Your task to perform on an android device: uninstall "Indeed Job Search" Image 0: 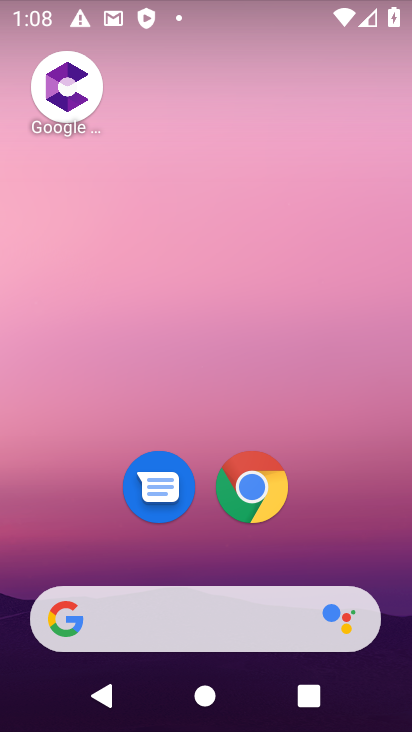
Step 0: drag from (186, 555) to (246, 288)
Your task to perform on an android device: uninstall "Indeed Job Search" Image 1: 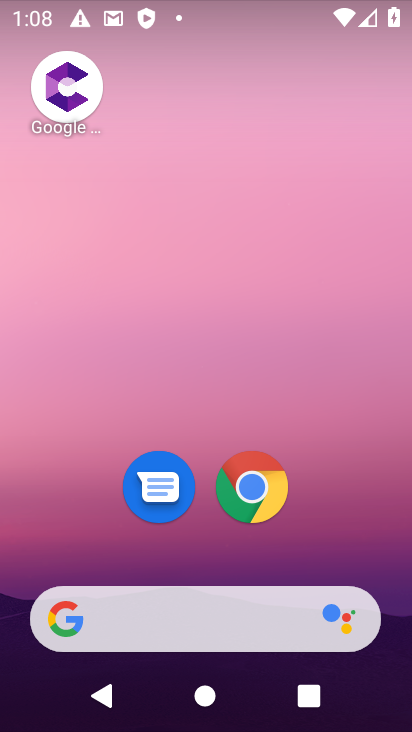
Step 1: drag from (188, 546) to (199, 86)
Your task to perform on an android device: uninstall "Indeed Job Search" Image 2: 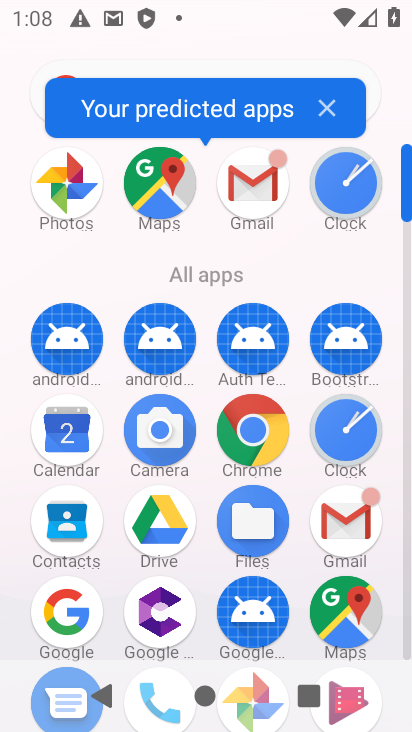
Step 2: drag from (105, 466) to (123, 178)
Your task to perform on an android device: uninstall "Indeed Job Search" Image 3: 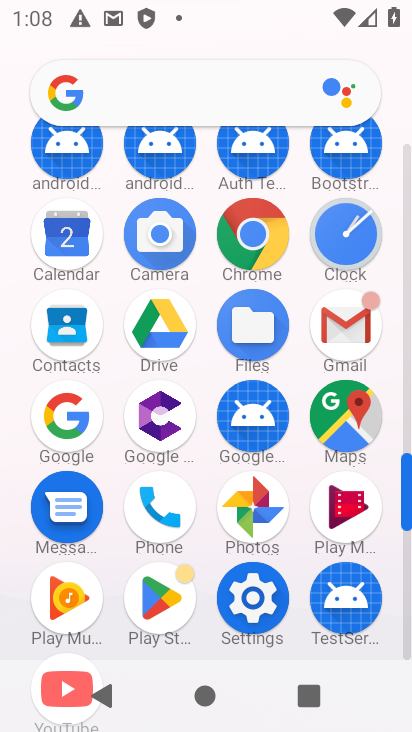
Step 3: click (142, 585)
Your task to perform on an android device: uninstall "Indeed Job Search" Image 4: 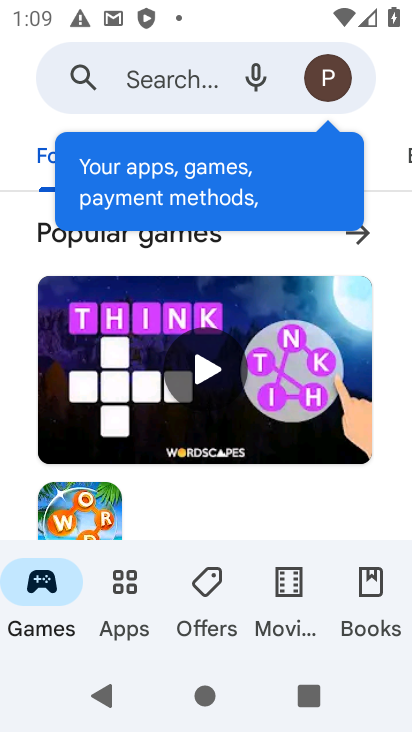
Step 4: click (185, 84)
Your task to perform on an android device: uninstall "Indeed Job Search" Image 5: 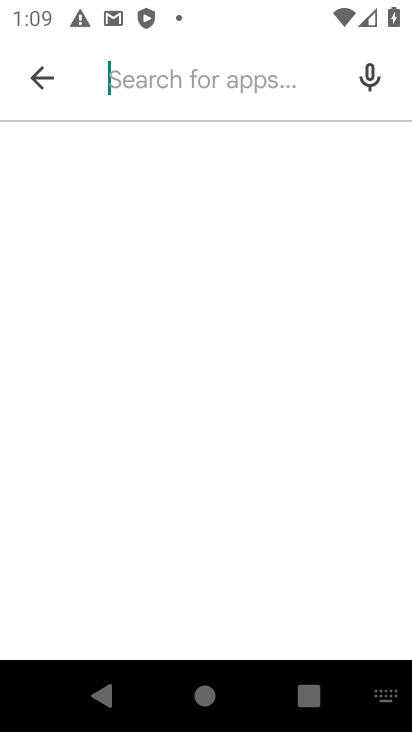
Step 5: type "Indeed Job Search"
Your task to perform on an android device: uninstall "Indeed Job Search" Image 6: 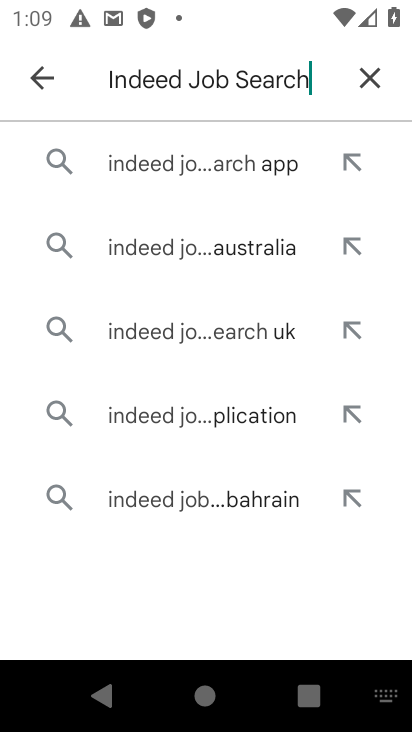
Step 6: click (163, 157)
Your task to perform on an android device: uninstall "Indeed Job Search" Image 7: 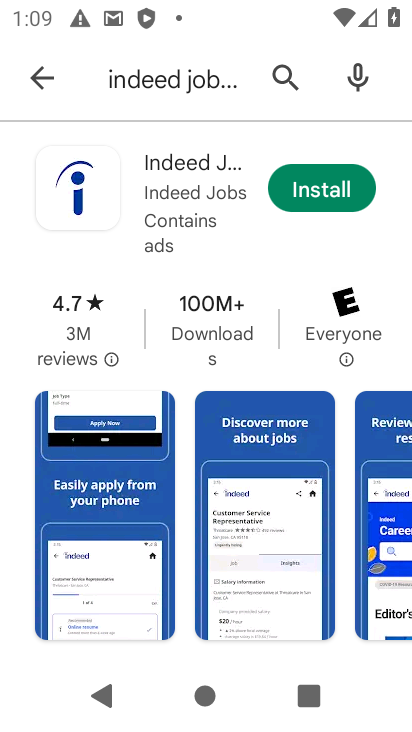
Step 7: task complete